Your task to perform on an android device: Go to network settings Image 0: 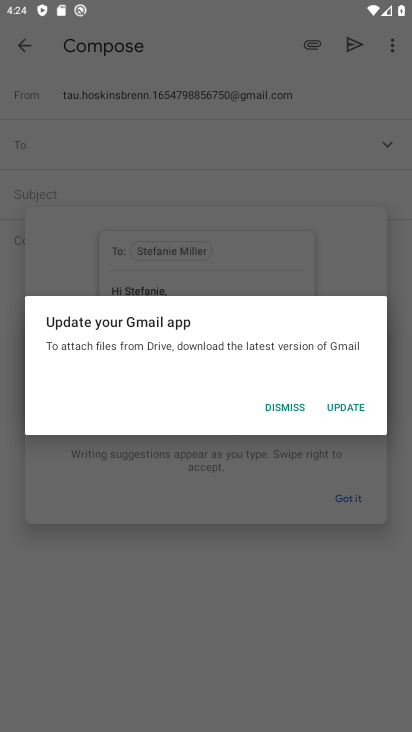
Step 0: press home button
Your task to perform on an android device: Go to network settings Image 1: 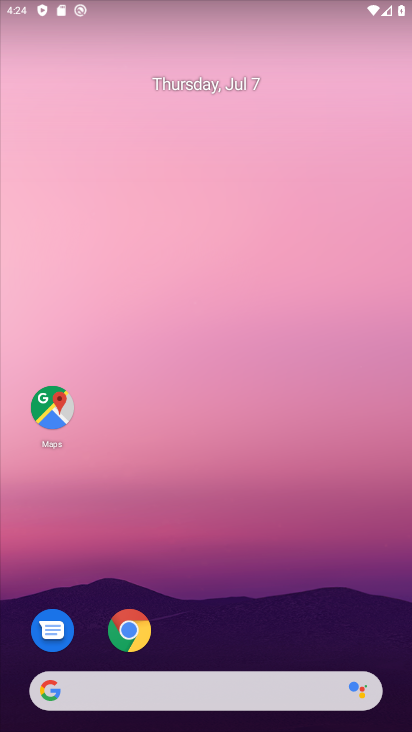
Step 1: drag from (257, 604) to (156, 140)
Your task to perform on an android device: Go to network settings Image 2: 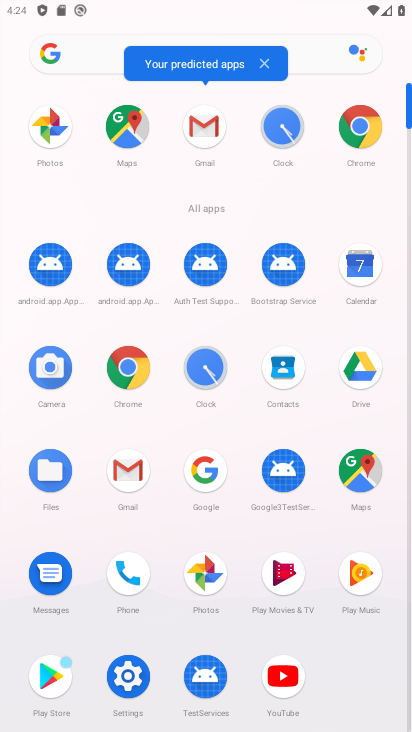
Step 2: click (130, 673)
Your task to perform on an android device: Go to network settings Image 3: 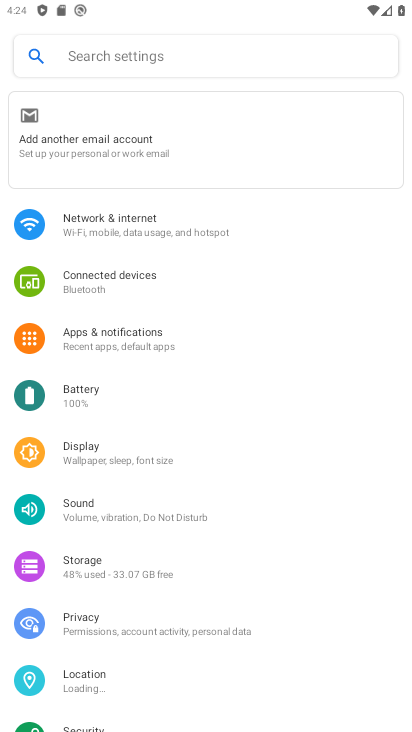
Step 3: click (261, 232)
Your task to perform on an android device: Go to network settings Image 4: 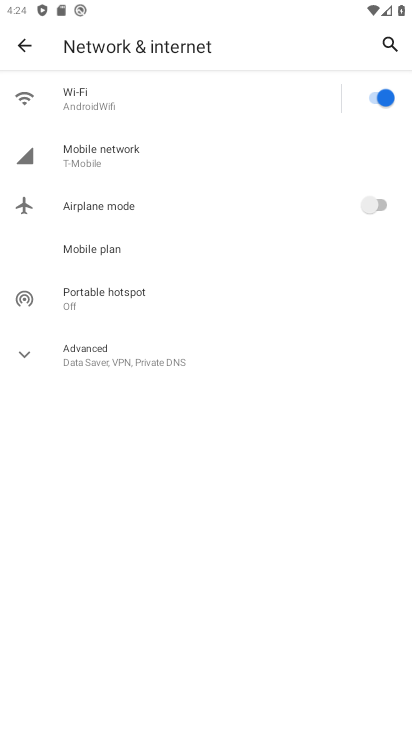
Step 4: task complete